Your task to perform on an android device: change the clock display to digital Image 0: 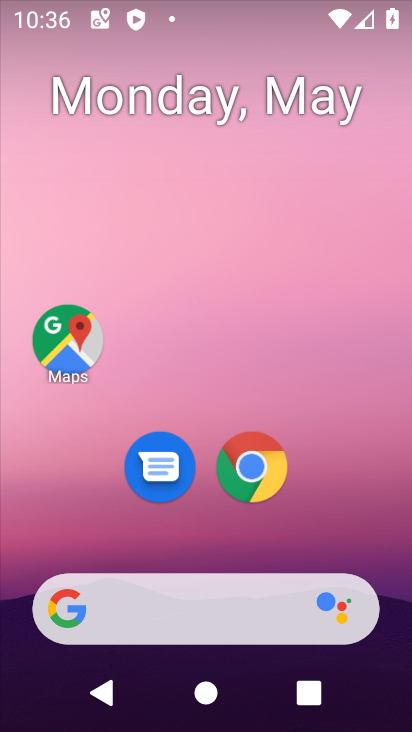
Step 0: drag from (402, 584) to (324, 6)
Your task to perform on an android device: change the clock display to digital Image 1: 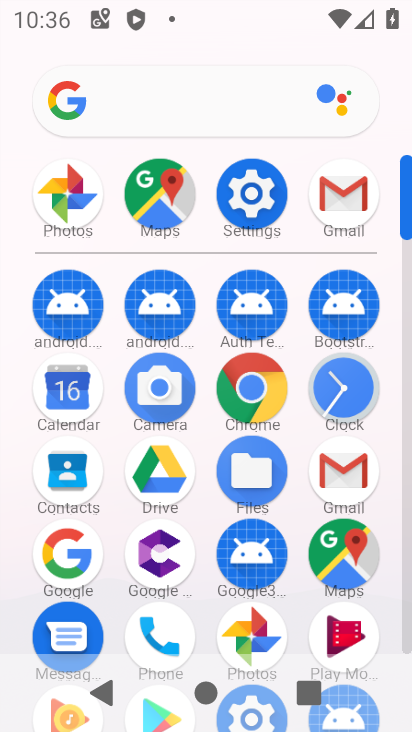
Step 1: click (407, 635)
Your task to perform on an android device: change the clock display to digital Image 2: 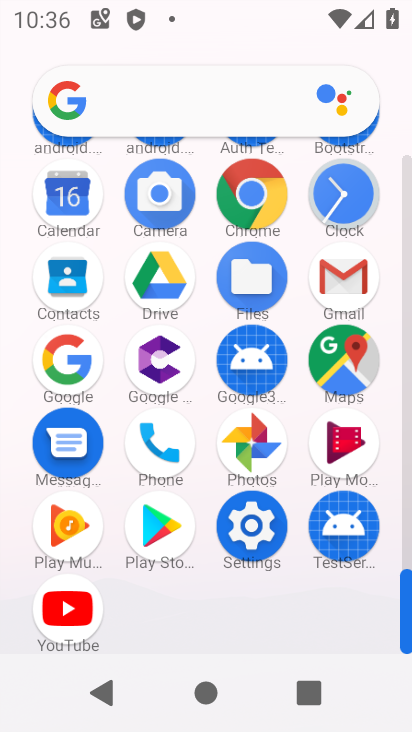
Step 2: click (343, 194)
Your task to perform on an android device: change the clock display to digital Image 3: 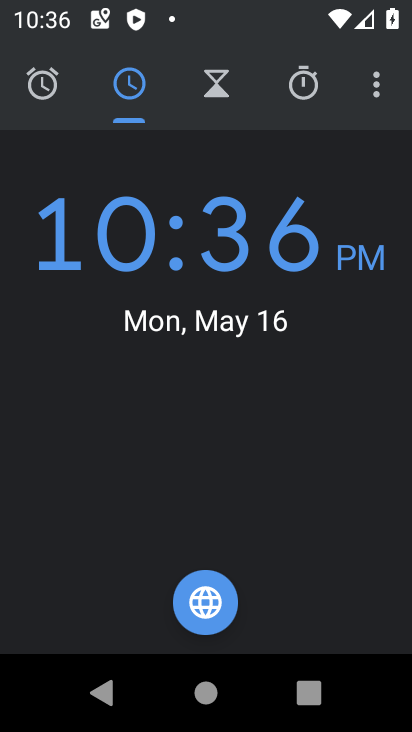
Step 3: click (377, 88)
Your task to perform on an android device: change the clock display to digital Image 4: 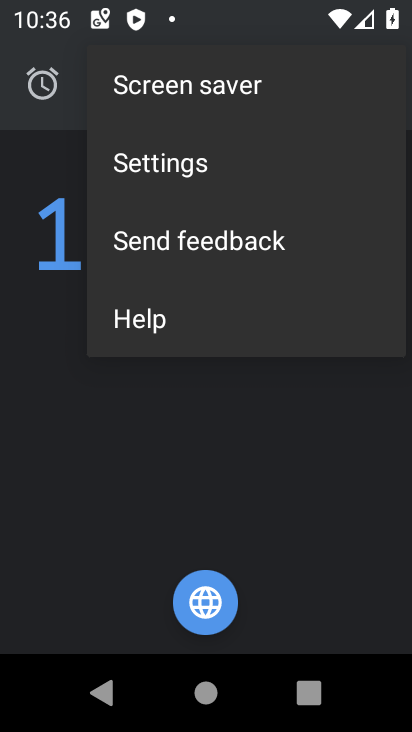
Step 4: click (146, 169)
Your task to perform on an android device: change the clock display to digital Image 5: 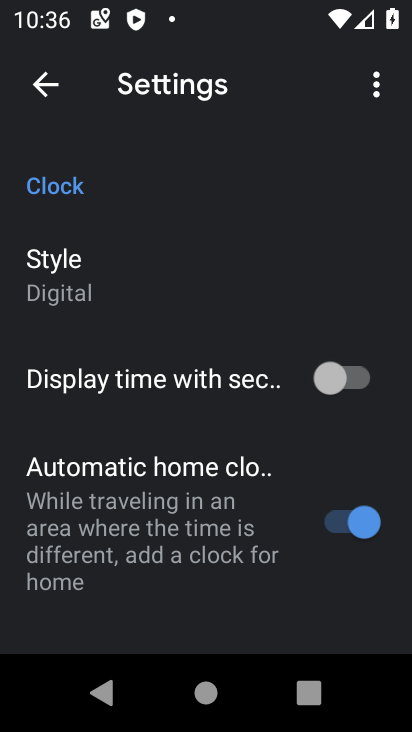
Step 5: task complete